Your task to perform on an android device: Search for Mexican restaurants on Maps Image 0: 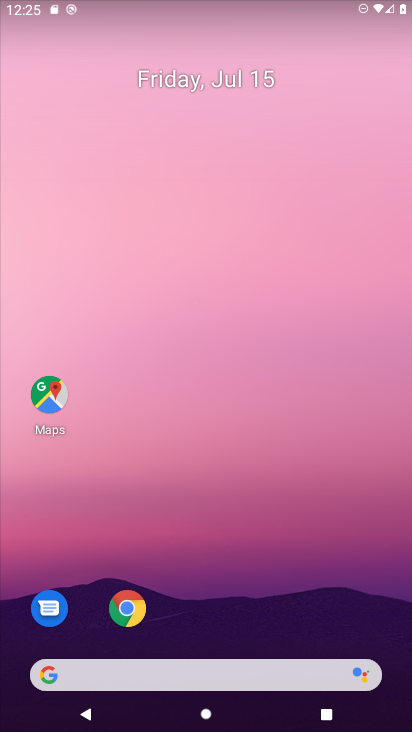
Step 0: drag from (212, 674) to (277, 174)
Your task to perform on an android device: Search for Mexican restaurants on Maps Image 1: 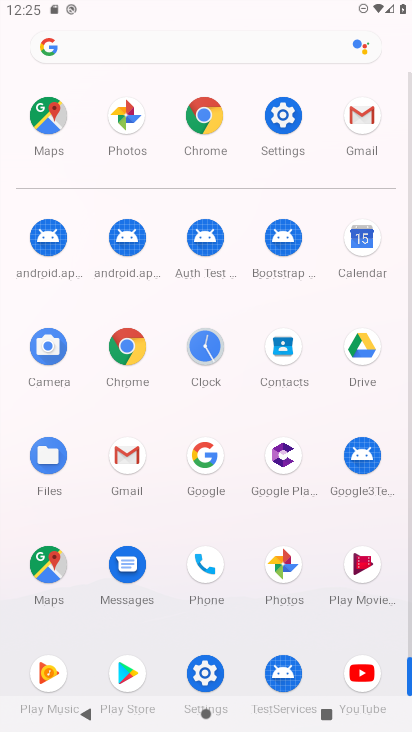
Step 1: click (53, 567)
Your task to perform on an android device: Search for Mexican restaurants on Maps Image 2: 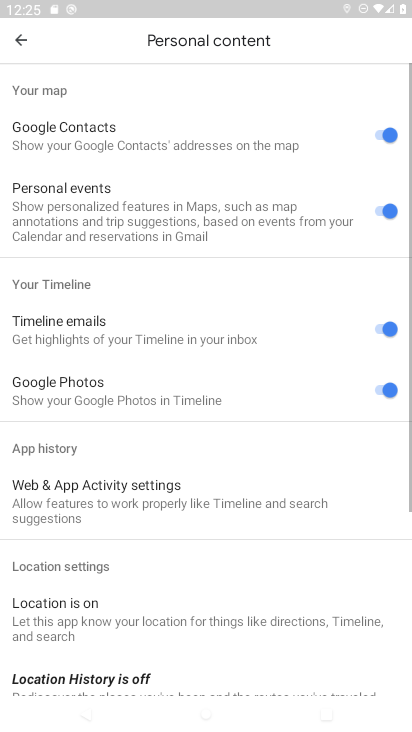
Step 2: press back button
Your task to perform on an android device: Search for Mexican restaurants on Maps Image 3: 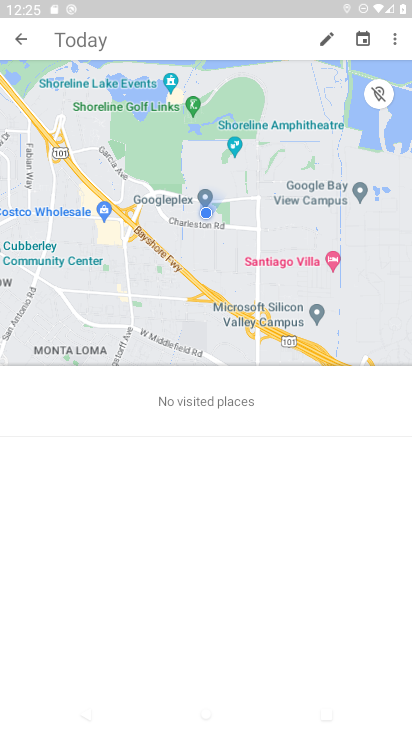
Step 3: press back button
Your task to perform on an android device: Search for Mexican restaurants on Maps Image 4: 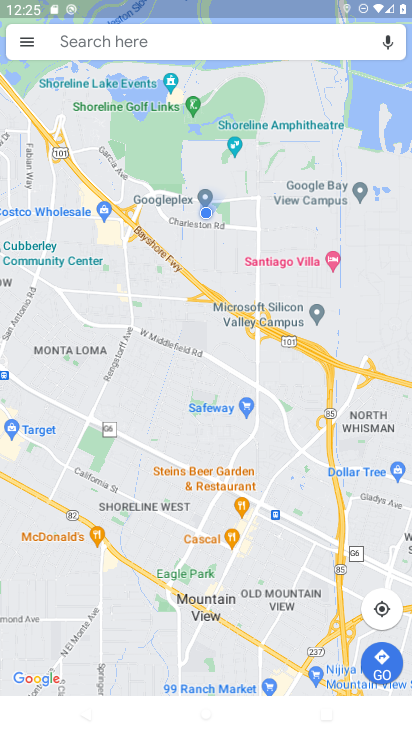
Step 4: click (173, 46)
Your task to perform on an android device: Search for Mexican restaurants on Maps Image 5: 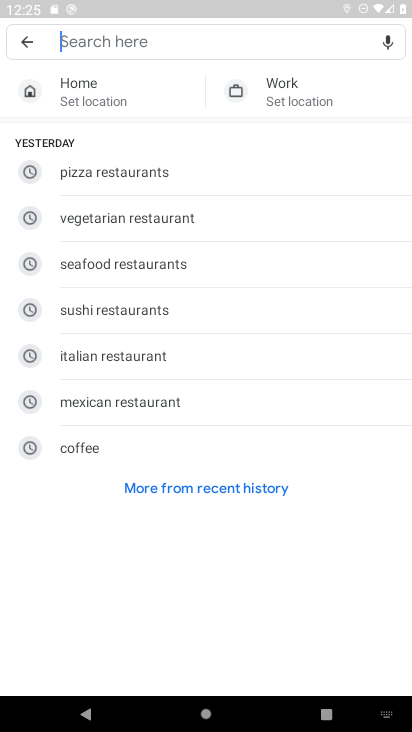
Step 5: click (113, 397)
Your task to perform on an android device: Search for Mexican restaurants on Maps Image 6: 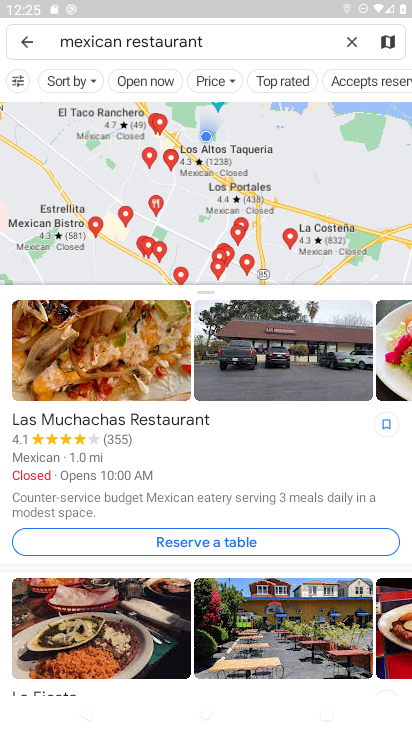
Step 6: task complete